Your task to perform on an android device: Open Youtube and go to the subscriptions tab Image 0: 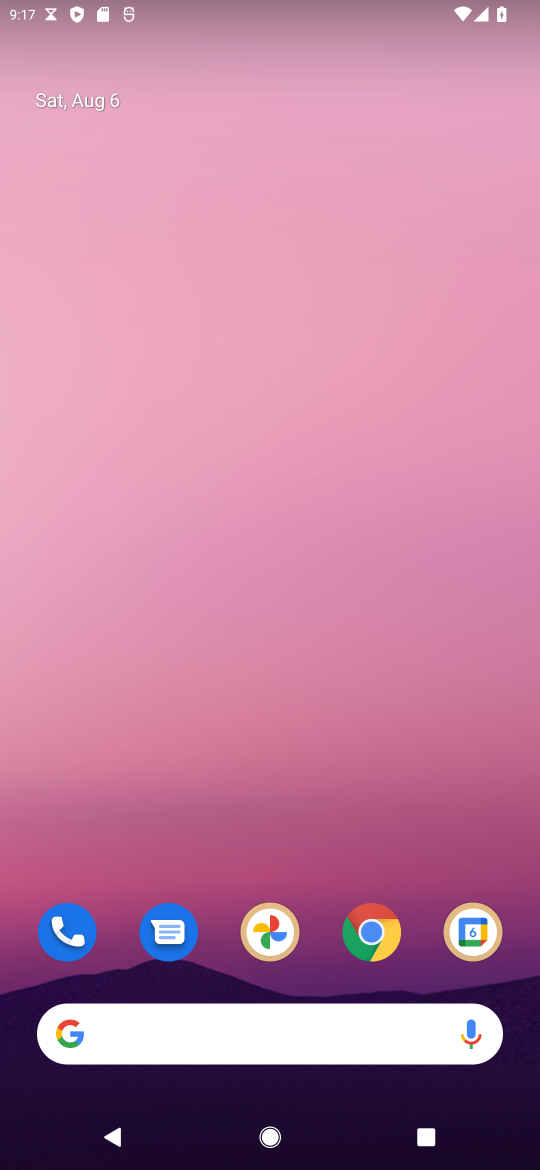
Step 0: drag from (210, 1039) to (274, 509)
Your task to perform on an android device: Open Youtube and go to the subscriptions tab Image 1: 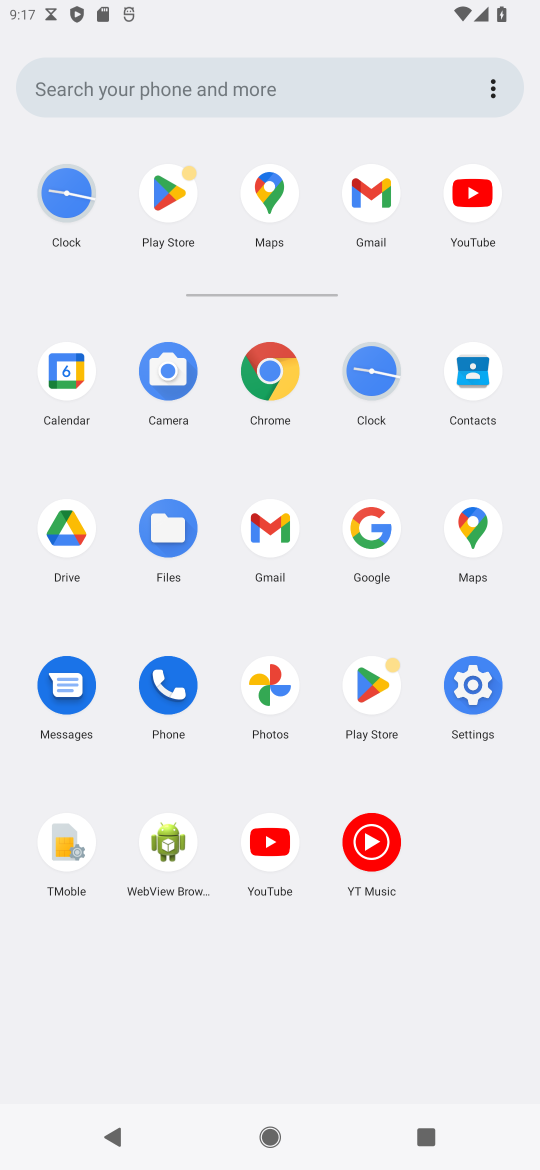
Step 1: click (476, 188)
Your task to perform on an android device: Open Youtube and go to the subscriptions tab Image 2: 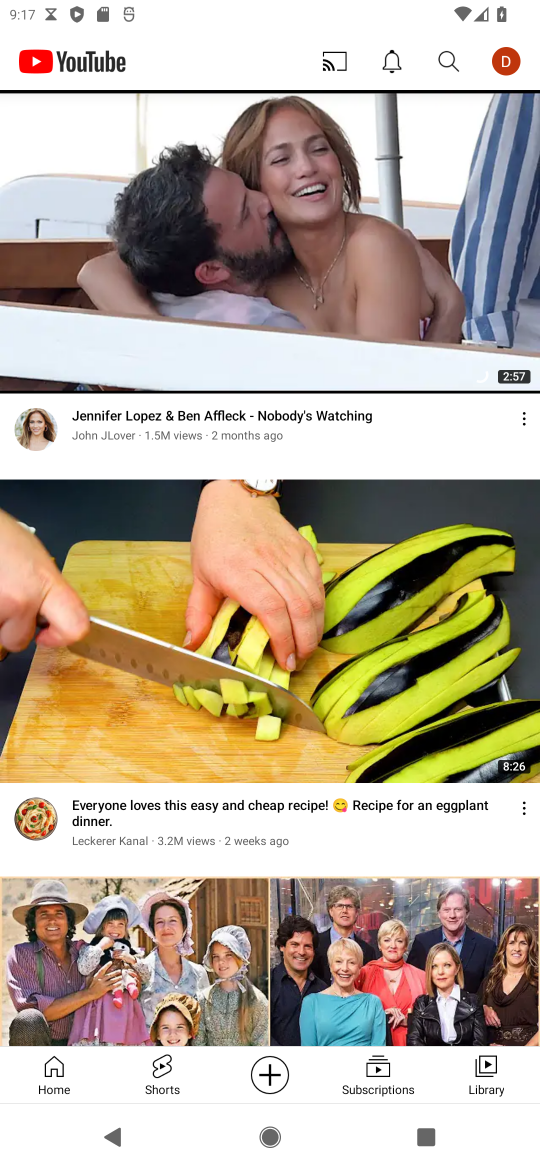
Step 2: click (378, 1074)
Your task to perform on an android device: Open Youtube and go to the subscriptions tab Image 3: 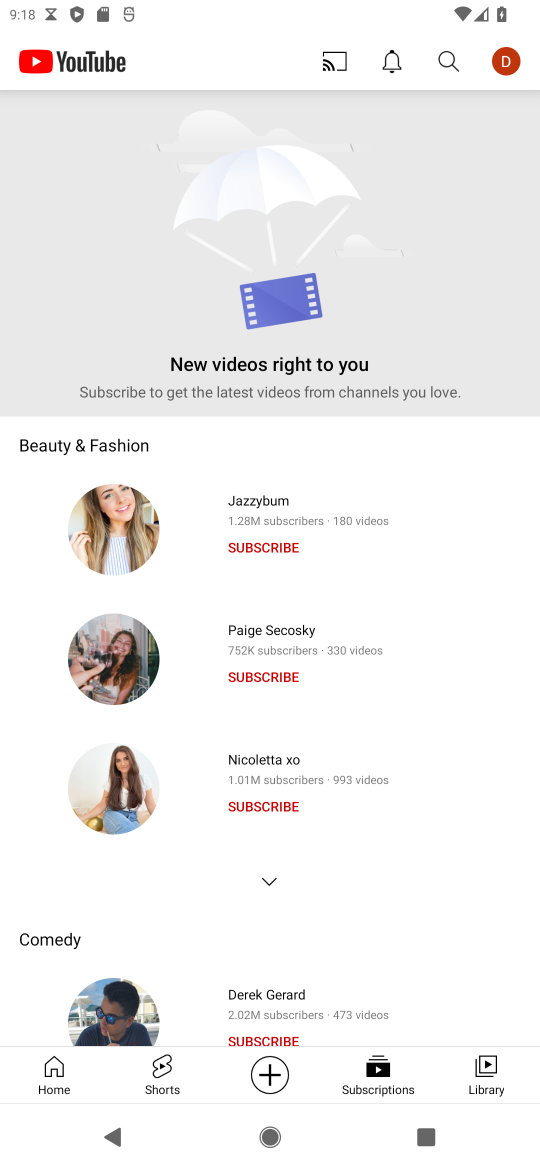
Step 3: task complete